Your task to perform on an android device: turn notification dots off Image 0: 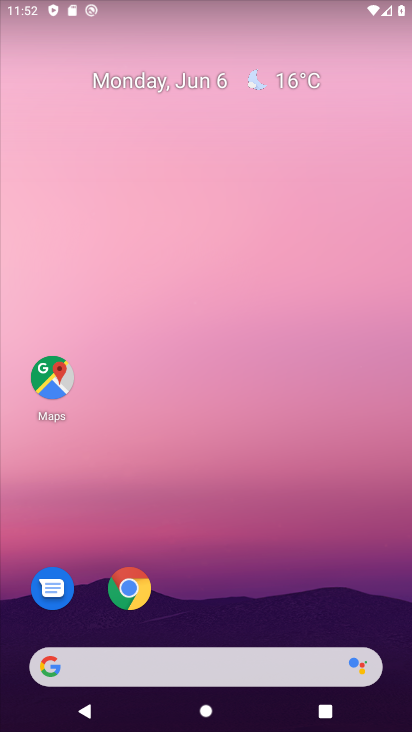
Step 0: drag from (373, 601) to (256, 38)
Your task to perform on an android device: turn notification dots off Image 1: 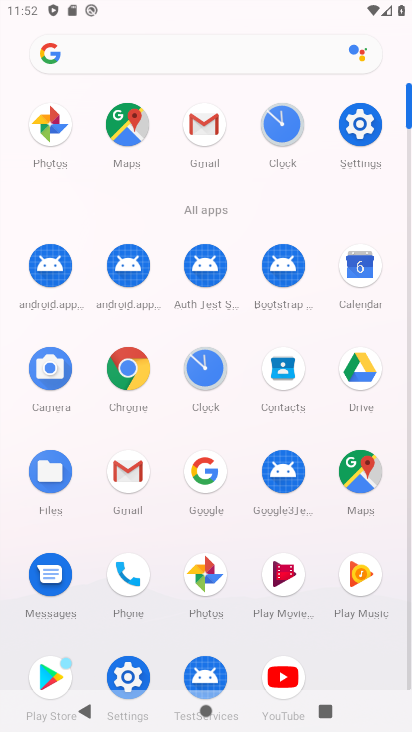
Step 1: click (349, 152)
Your task to perform on an android device: turn notification dots off Image 2: 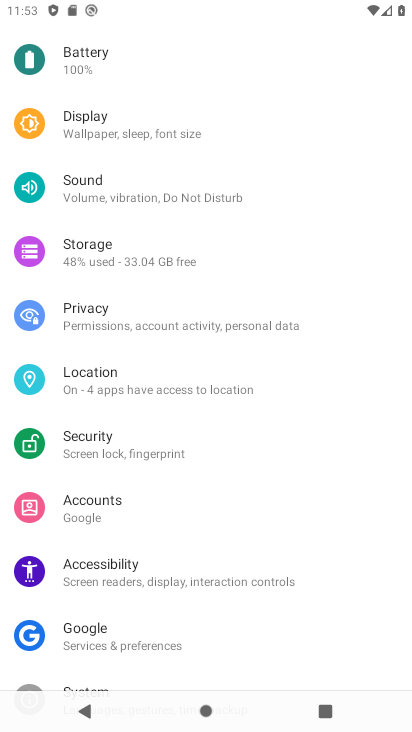
Step 2: drag from (173, 182) to (227, 417)
Your task to perform on an android device: turn notification dots off Image 3: 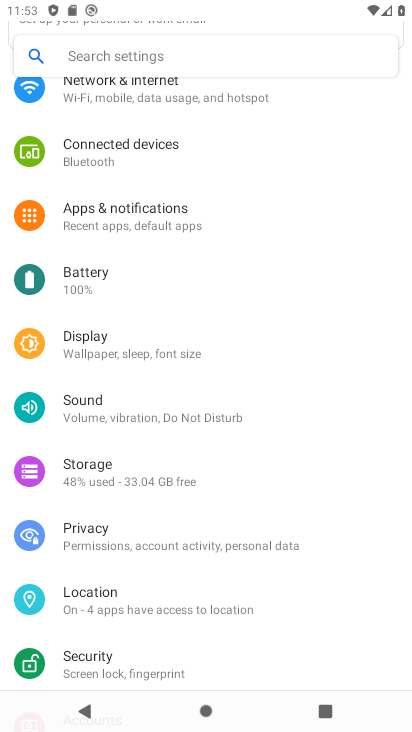
Step 3: click (162, 199)
Your task to perform on an android device: turn notification dots off Image 4: 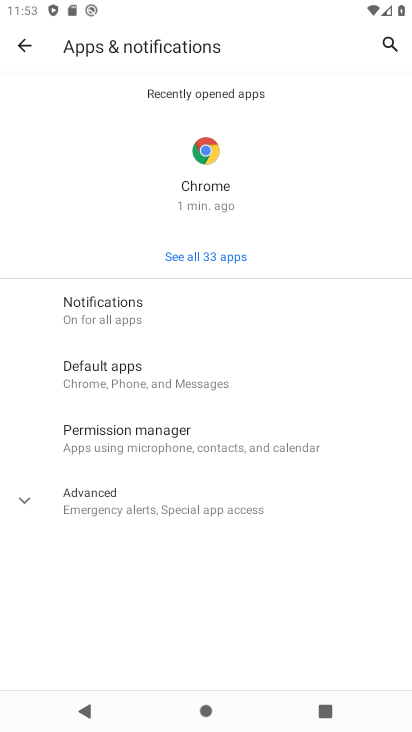
Step 4: task complete